Your task to perform on an android device: change timer sound Image 0: 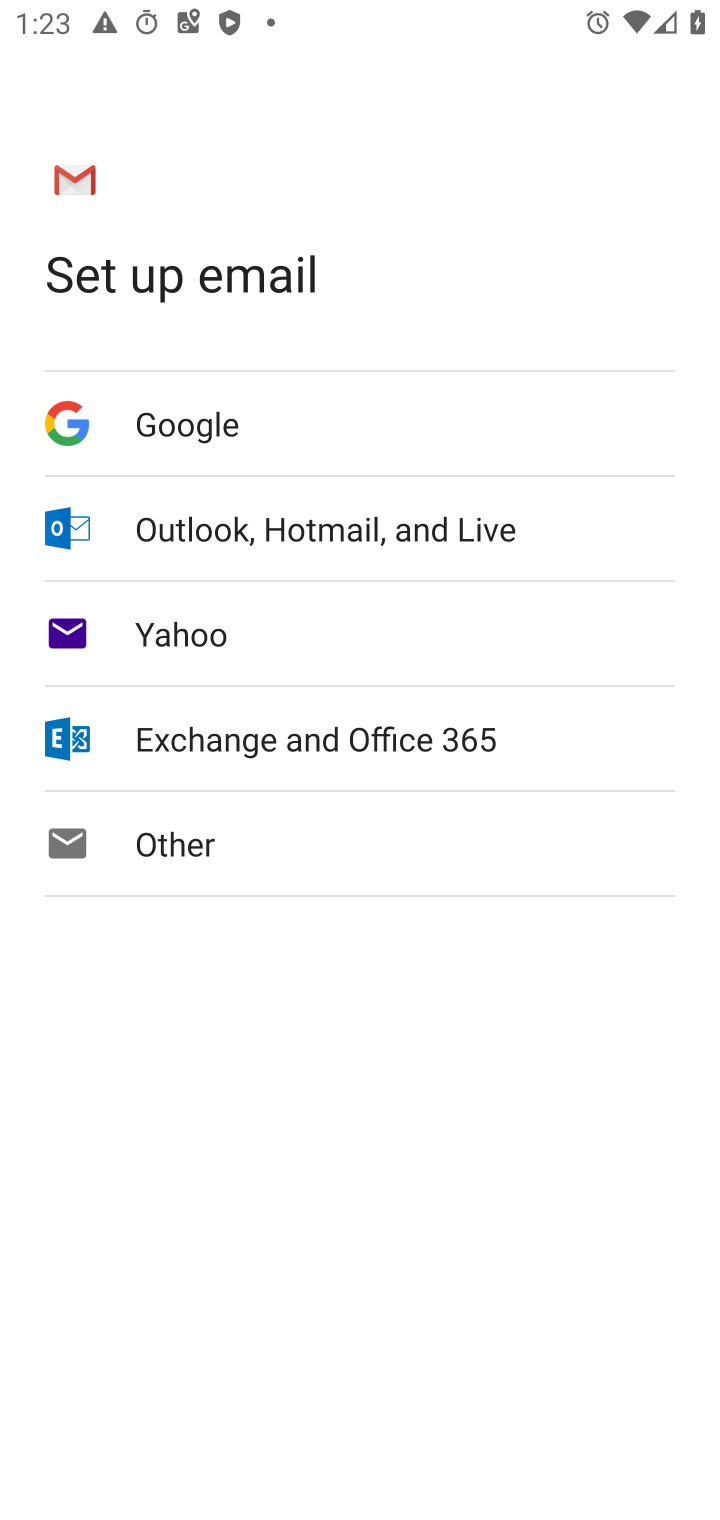
Step 0: press home button
Your task to perform on an android device: change timer sound Image 1: 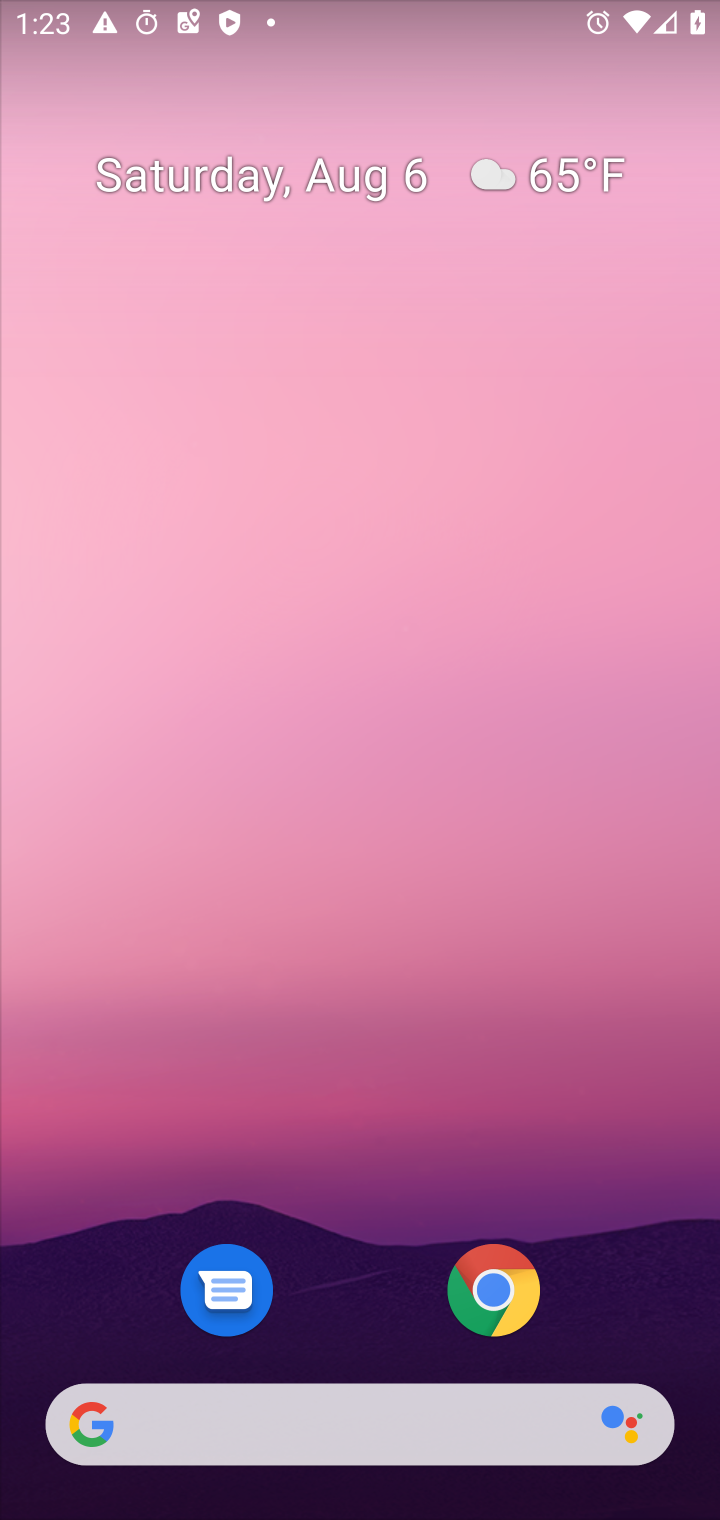
Step 1: drag from (391, 1059) to (454, 336)
Your task to perform on an android device: change timer sound Image 2: 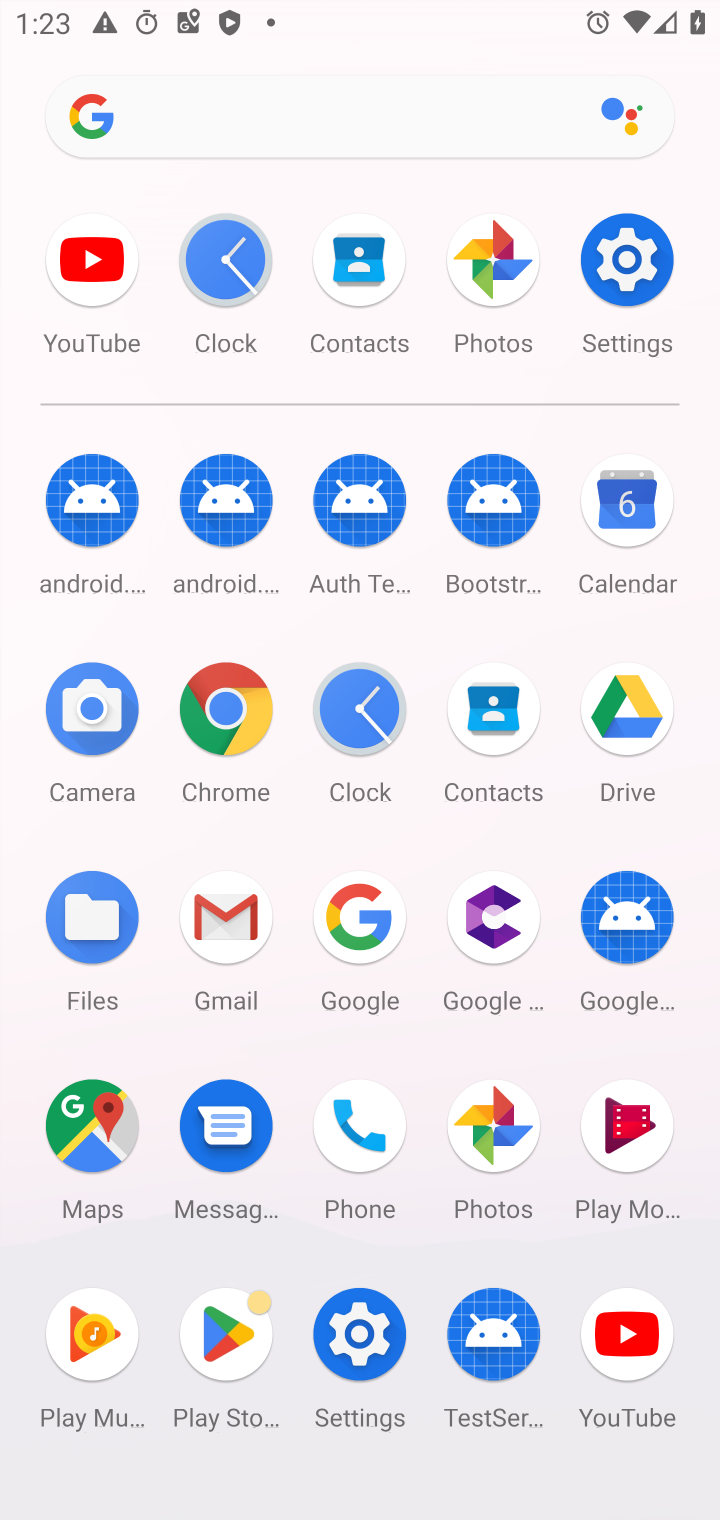
Step 2: click (353, 696)
Your task to perform on an android device: change timer sound Image 3: 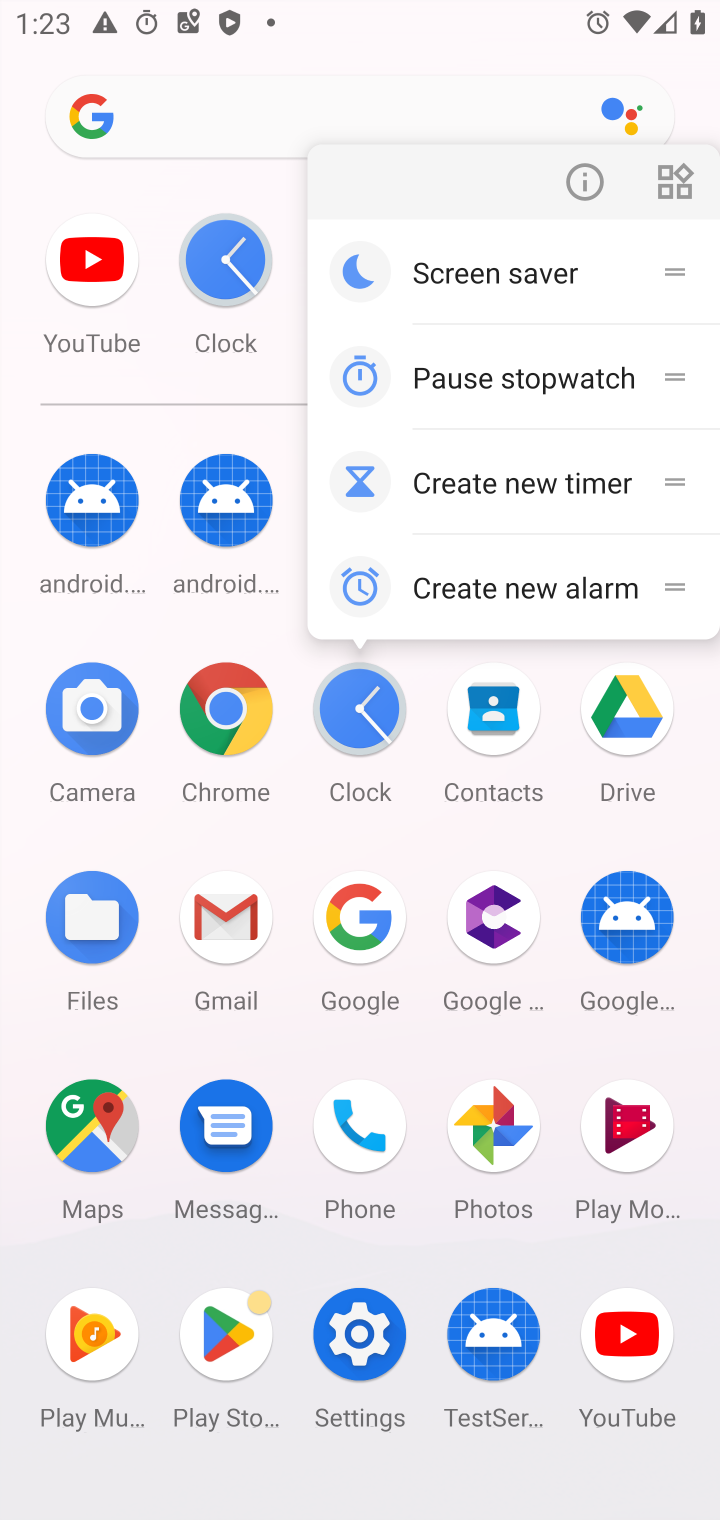
Step 3: click (360, 703)
Your task to perform on an android device: change timer sound Image 4: 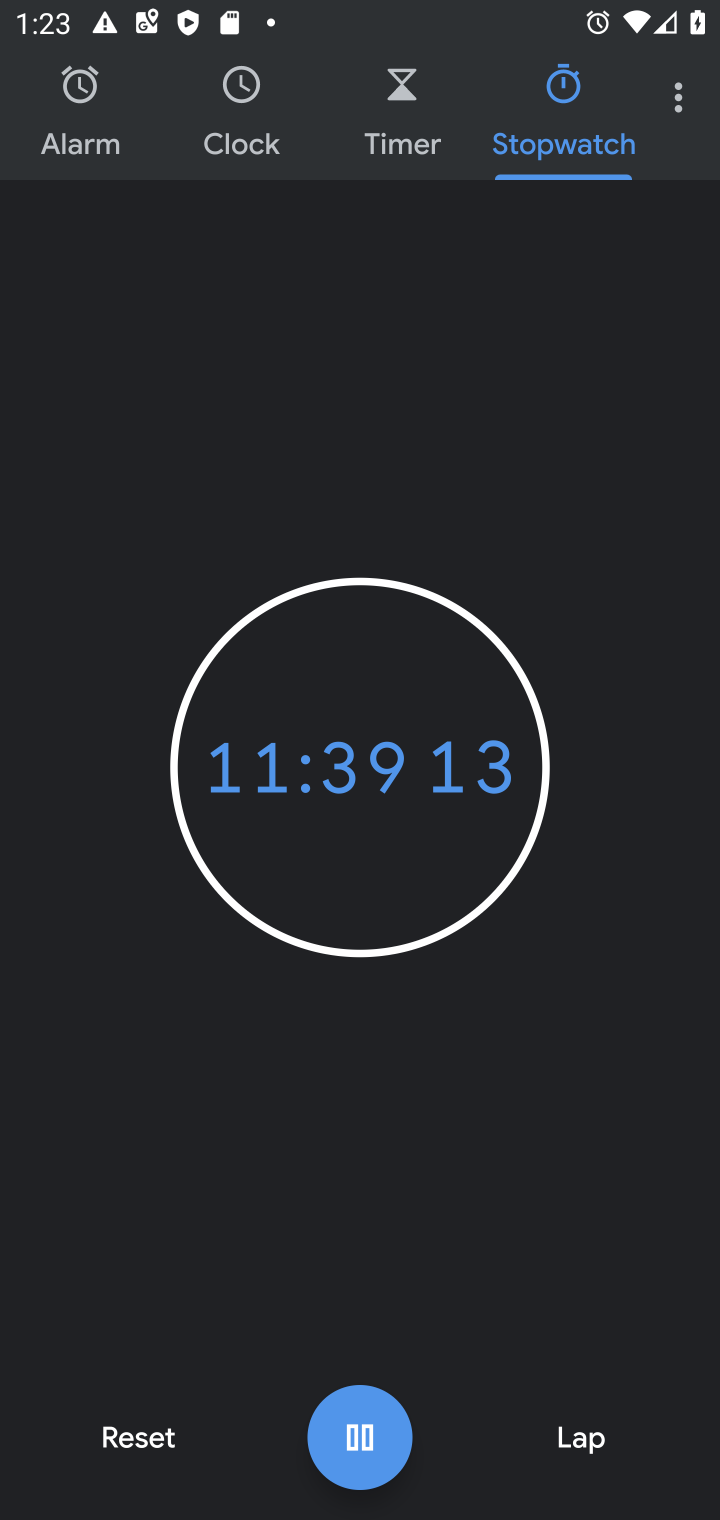
Step 4: click (684, 104)
Your task to perform on an android device: change timer sound Image 5: 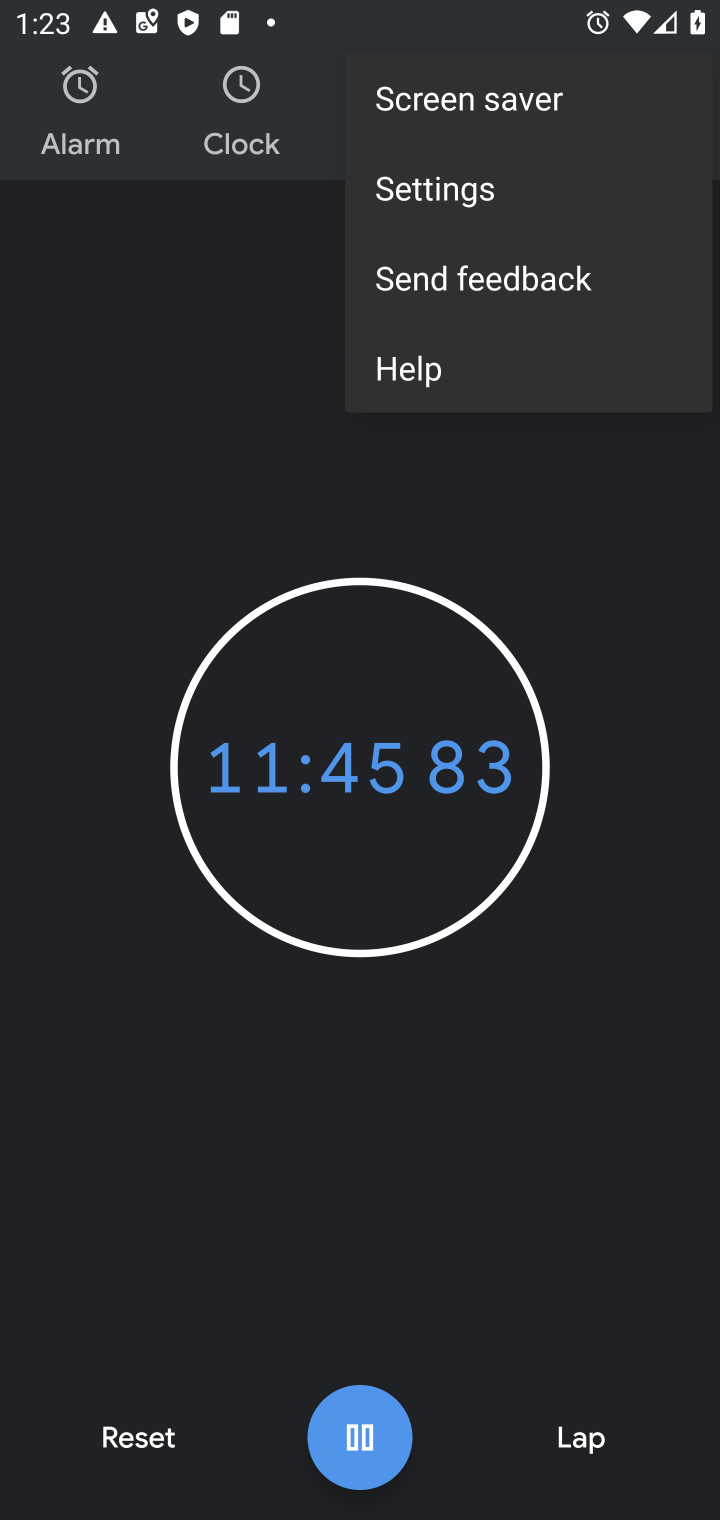
Step 5: click (534, 176)
Your task to perform on an android device: change timer sound Image 6: 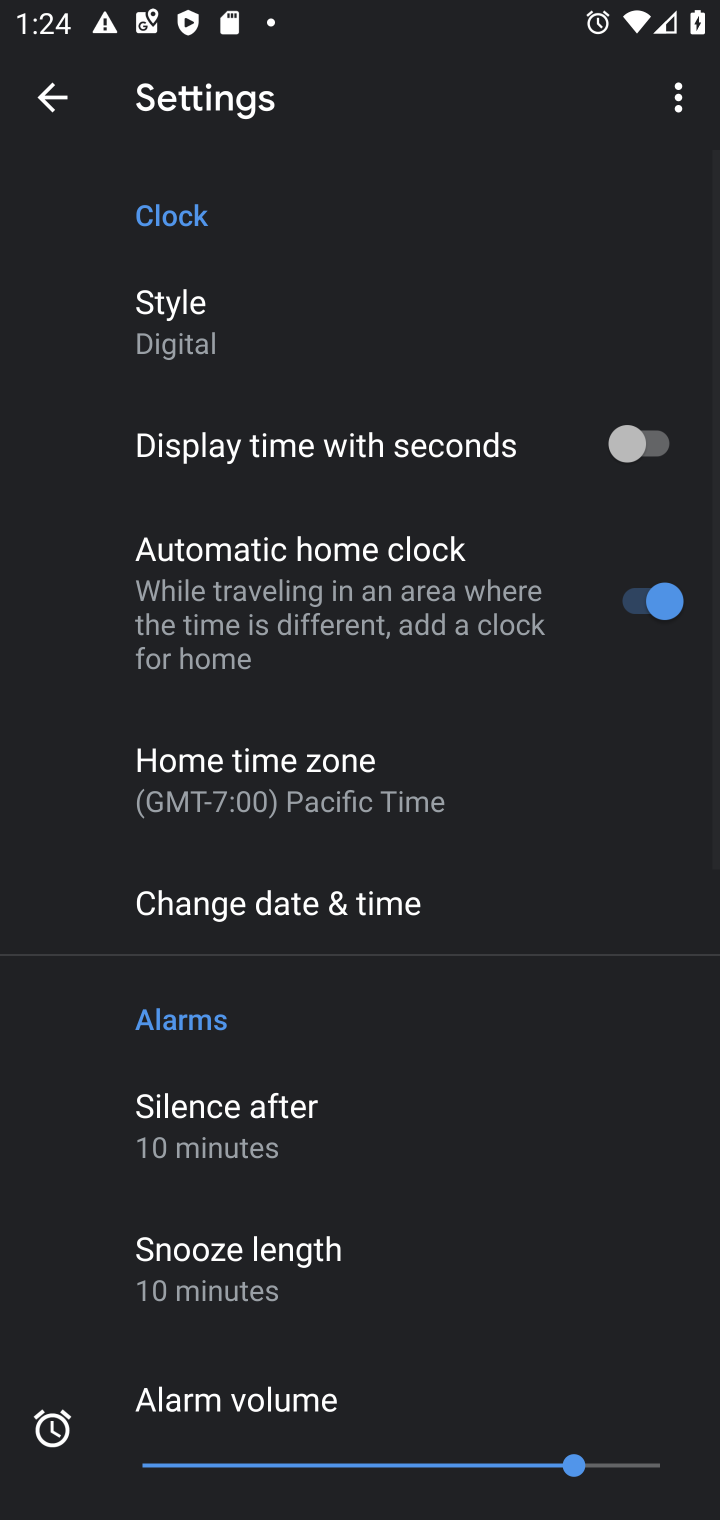
Step 6: drag from (375, 1264) to (558, 51)
Your task to perform on an android device: change timer sound Image 7: 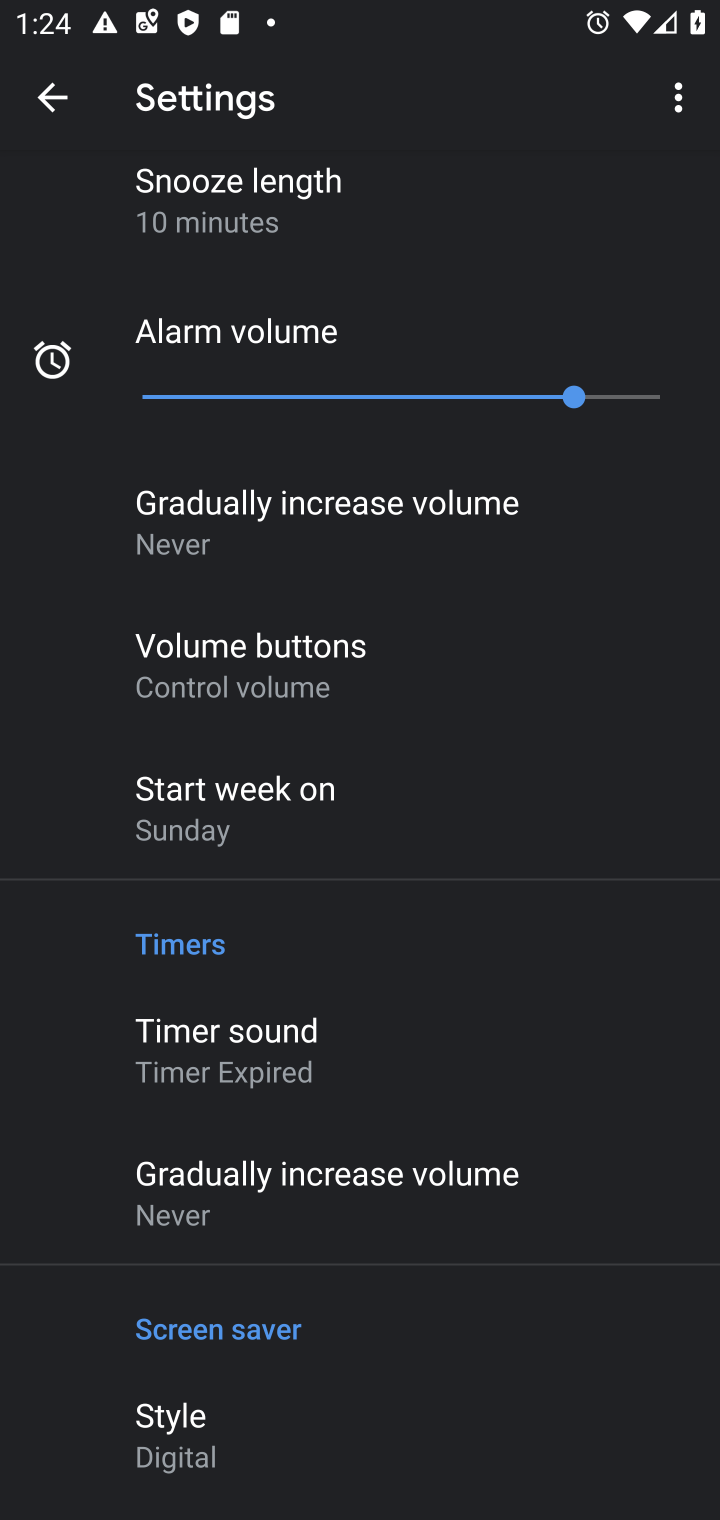
Step 7: click (305, 1050)
Your task to perform on an android device: change timer sound Image 8: 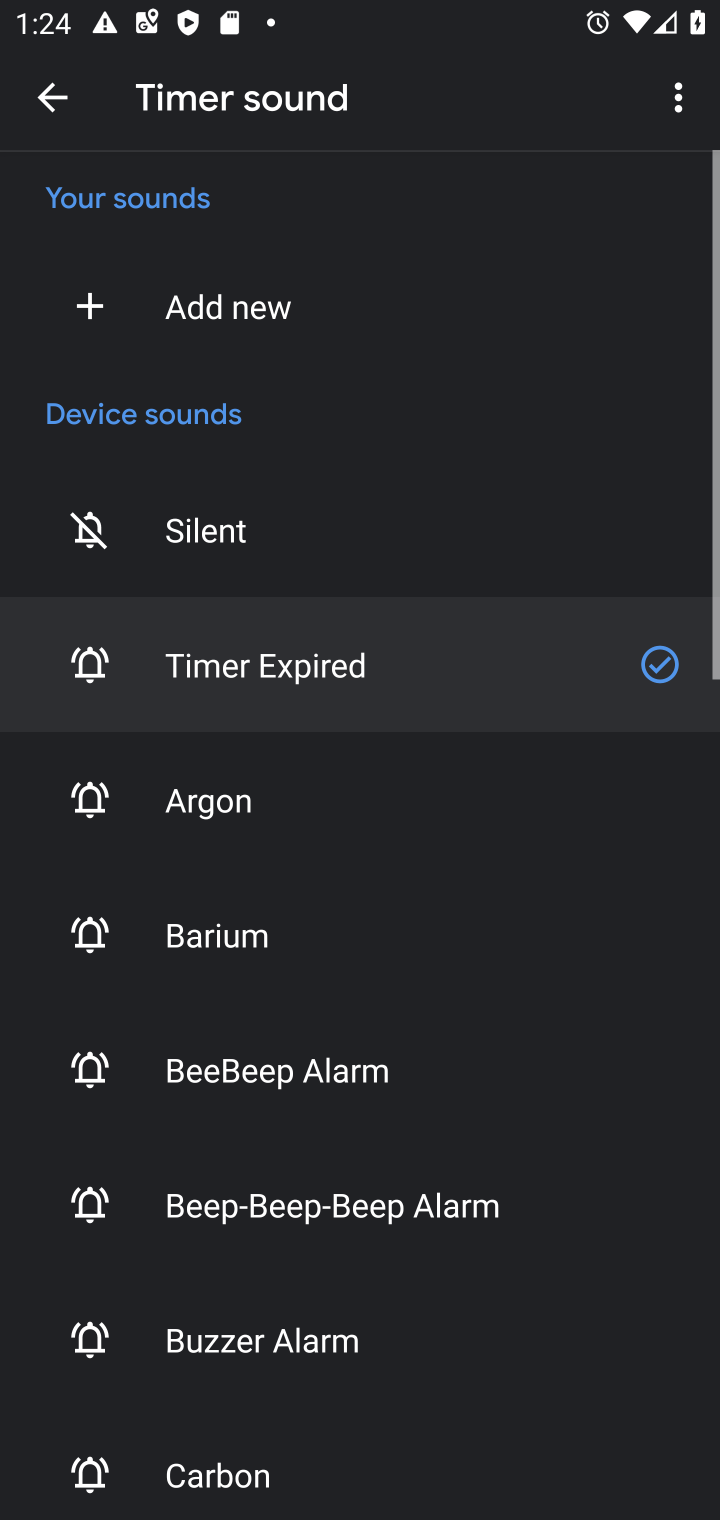
Step 8: click (309, 1208)
Your task to perform on an android device: change timer sound Image 9: 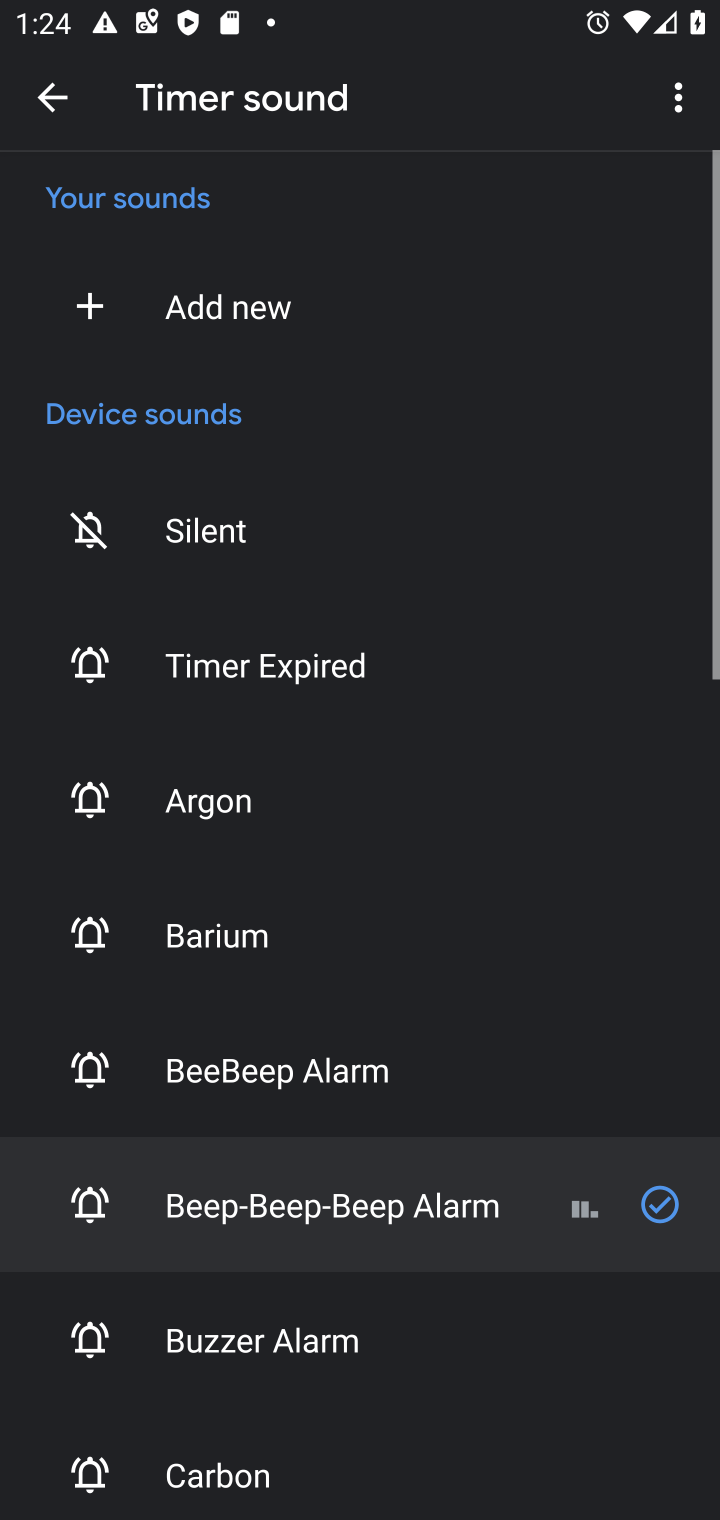
Step 9: task complete